Your task to perform on an android device: turn vacation reply on in the gmail app Image 0: 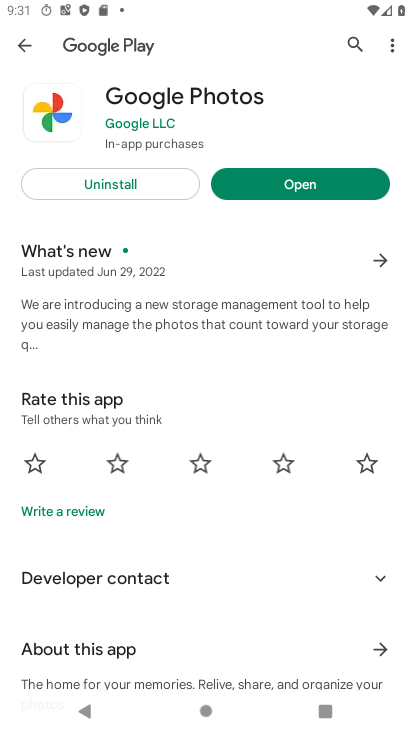
Step 0: press home button
Your task to perform on an android device: turn vacation reply on in the gmail app Image 1: 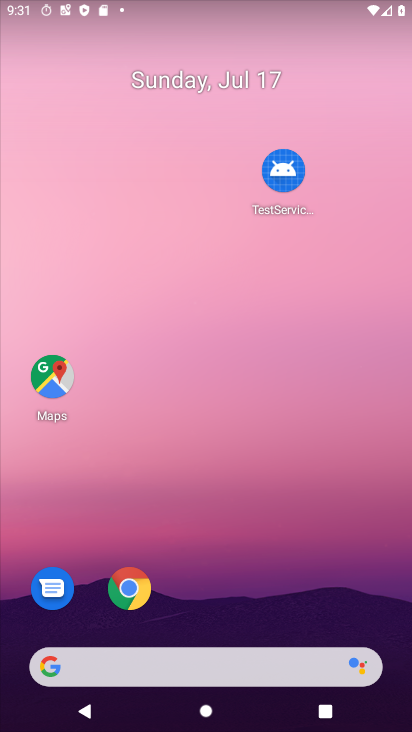
Step 1: drag from (220, 629) to (242, 3)
Your task to perform on an android device: turn vacation reply on in the gmail app Image 2: 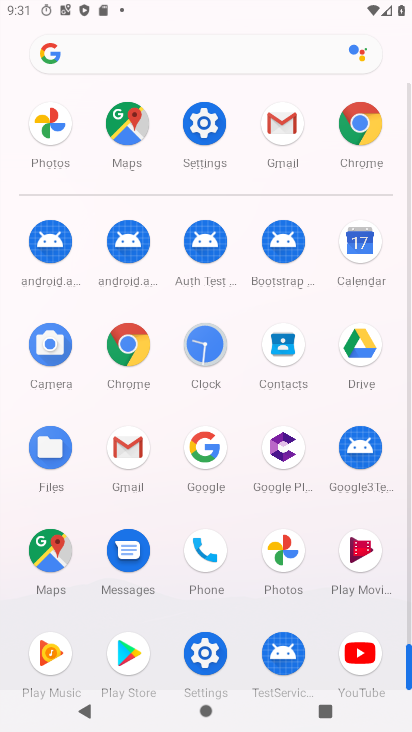
Step 2: click (134, 465)
Your task to perform on an android device: turn vacation reply on in the gmail app Image 3: 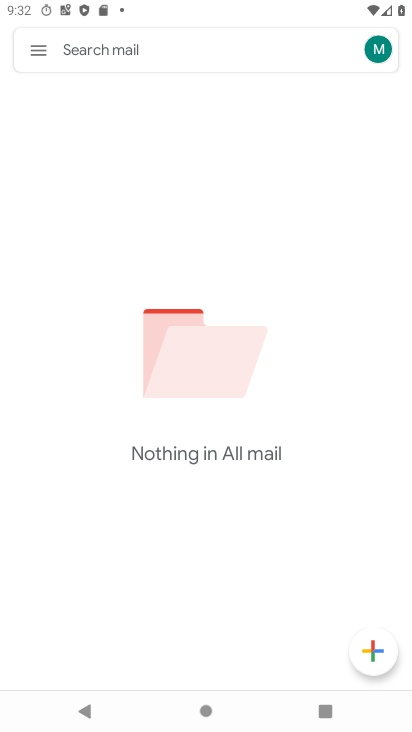
Step 3: click (46, 47)
Your task to perform on an android device: turn vacation reply on in the gmail app Image 4: 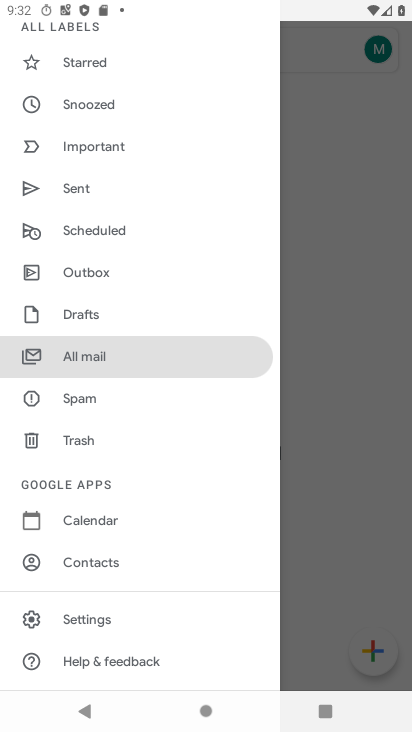
Step 4: click (82, 620)
Your task to perform on an android device: turn vacation reply on in the gmail app Image 5: 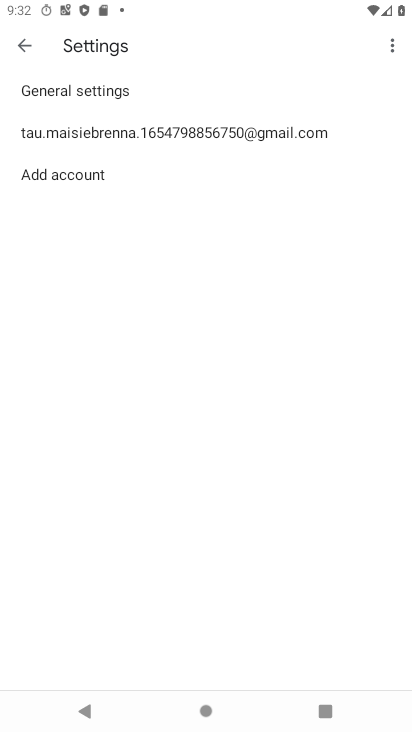
Step 5: click (142, 143)
Your task to perform on an android device: turn vacation reply on in the gmail app Image 6: 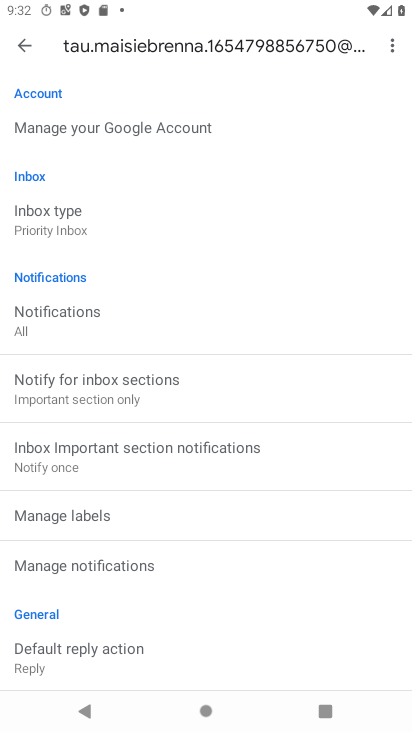
Step 6: drag from (110, 518) to (199, 204)
Your task to perform on an android device: turn vacation reply on in the gmail app Image 7: 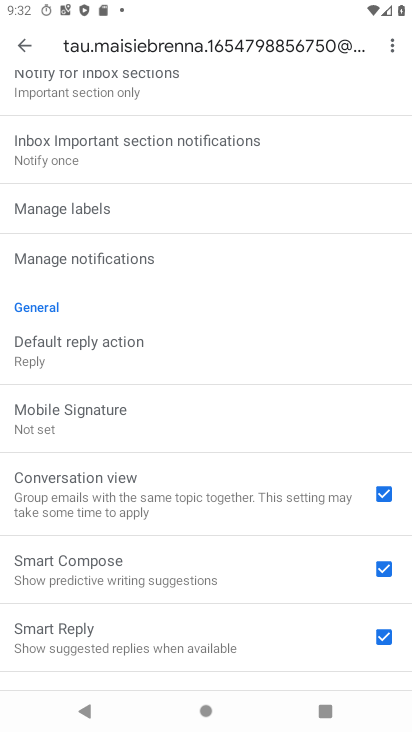
Step 7: drag from (165, 553) to (251, 214)
Your task to perform on an android device: turn vacation reply on in the gmail app Image 8: 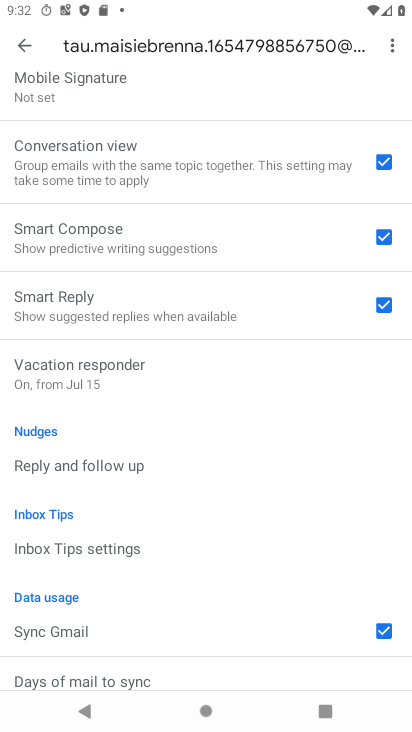
Step 8: click (160, 381)
Your task to perform on an android device: turn vacation reply on in the gmail app Image 9: 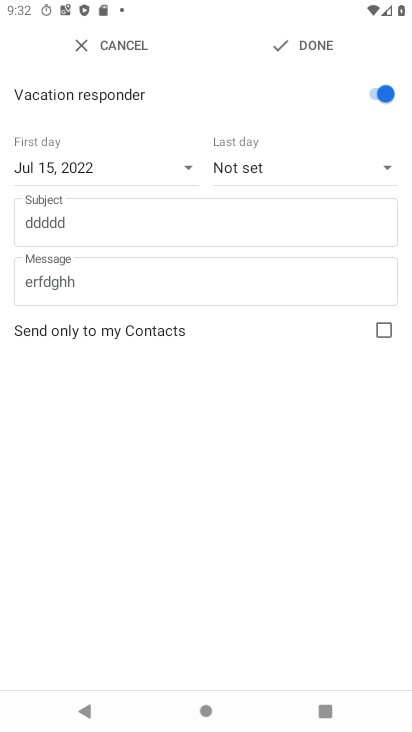
Step 9: task complete